Your task to perform on an android device: move a message to another label in the gmail app Image 0: 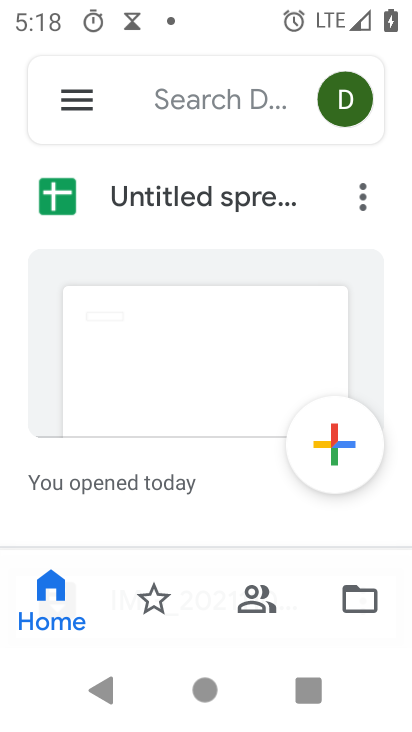
Step 0: press home button
Your task to perform on an android device: move a message to another label in the gmail app Image 1: 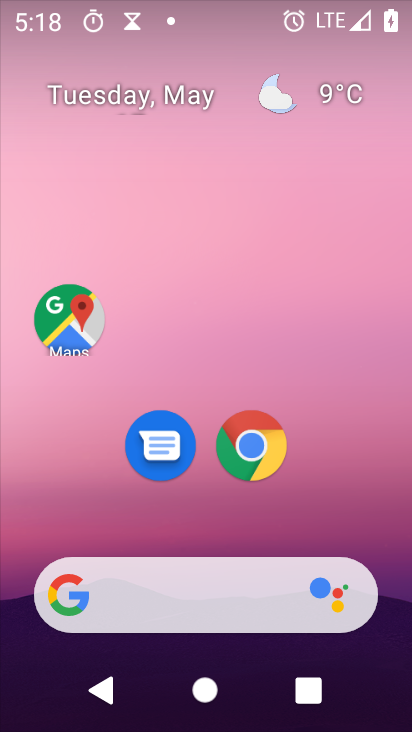
Step 1: drag from (251, 675) to (263, 12)
Your task to perform on an android device: move a message to another label in the gmail app Image 2: 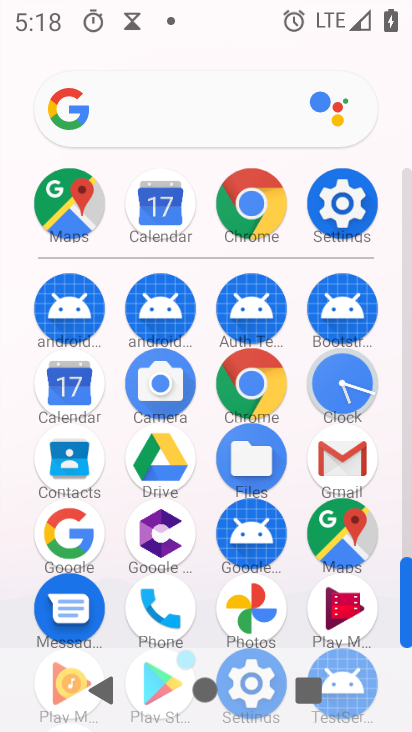
Step 2: click (337, 453)
Your task to perform on an android device: move a message to another label in the gmail app Image 3: 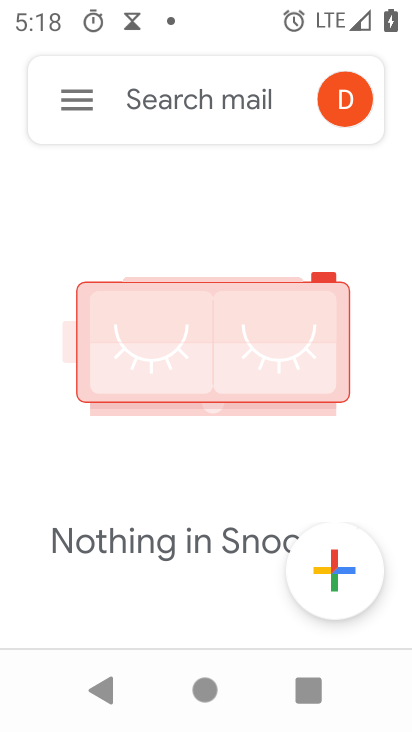
Step 3: task complete